Your task to perform on an android device: Go to Yahoo.com Image 0: 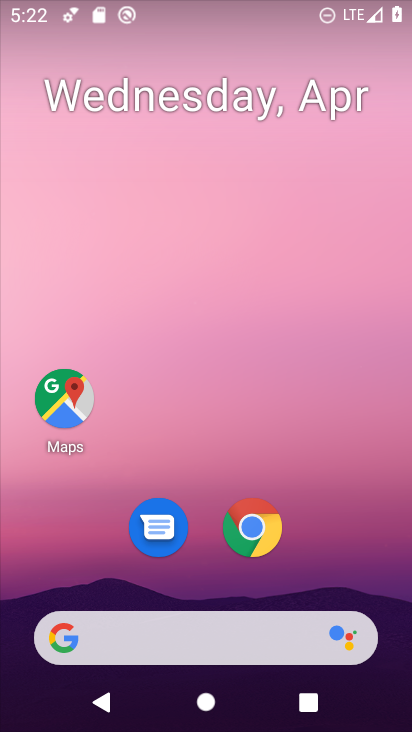
Step 0: click (257, 527)
Your task to perform on an android device: Go to Yahoo.com Image 1: 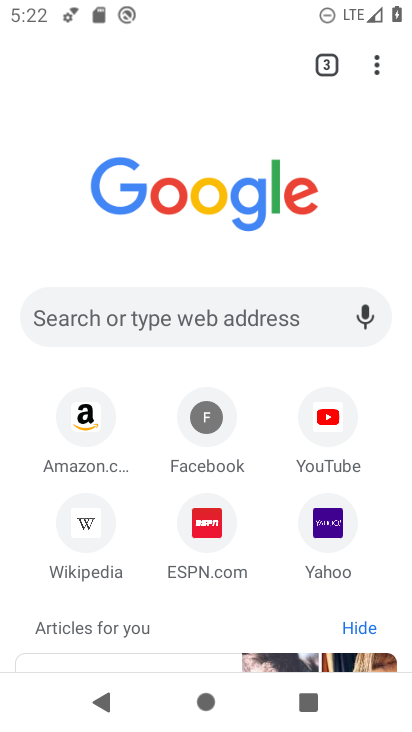
Step 1: click (327, 545)
Your task to perform on an android device: Go to Yahoo.com Image 2: 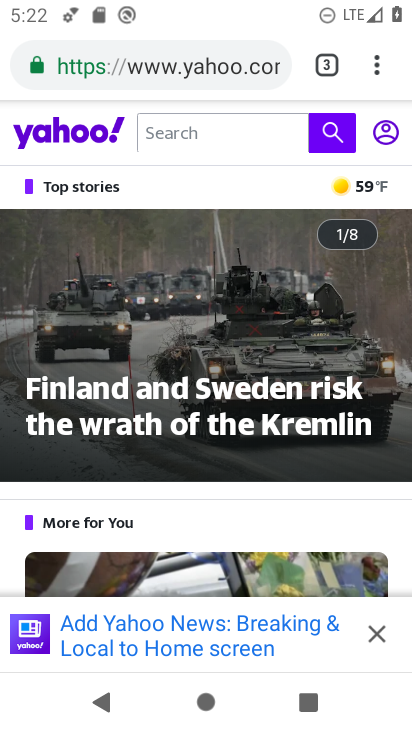
Step 2: task complete